Your task to perform on an android device: toggle improve location accuracy Image 0: 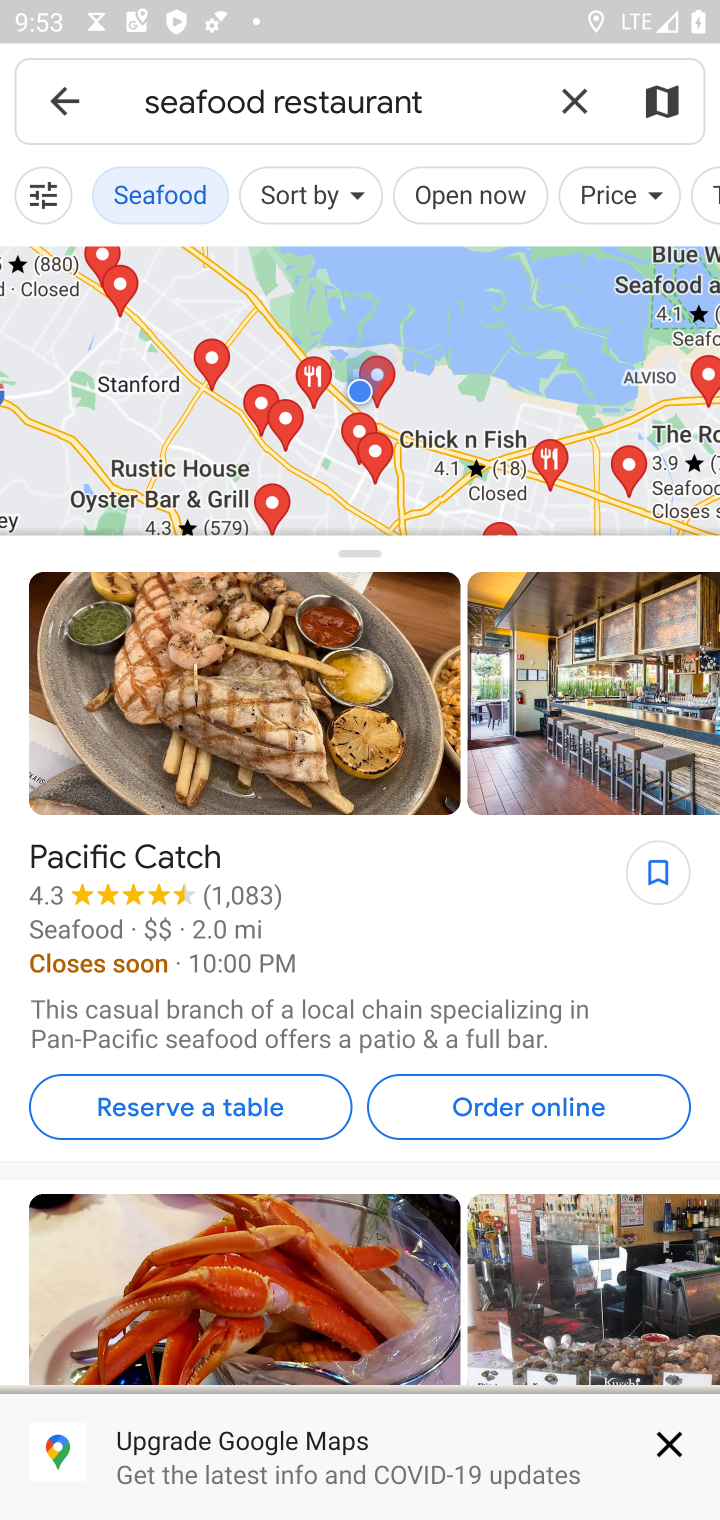
Step 0: press home button
Your task to perform on an android device: toggle improve location accuracy Image 1: 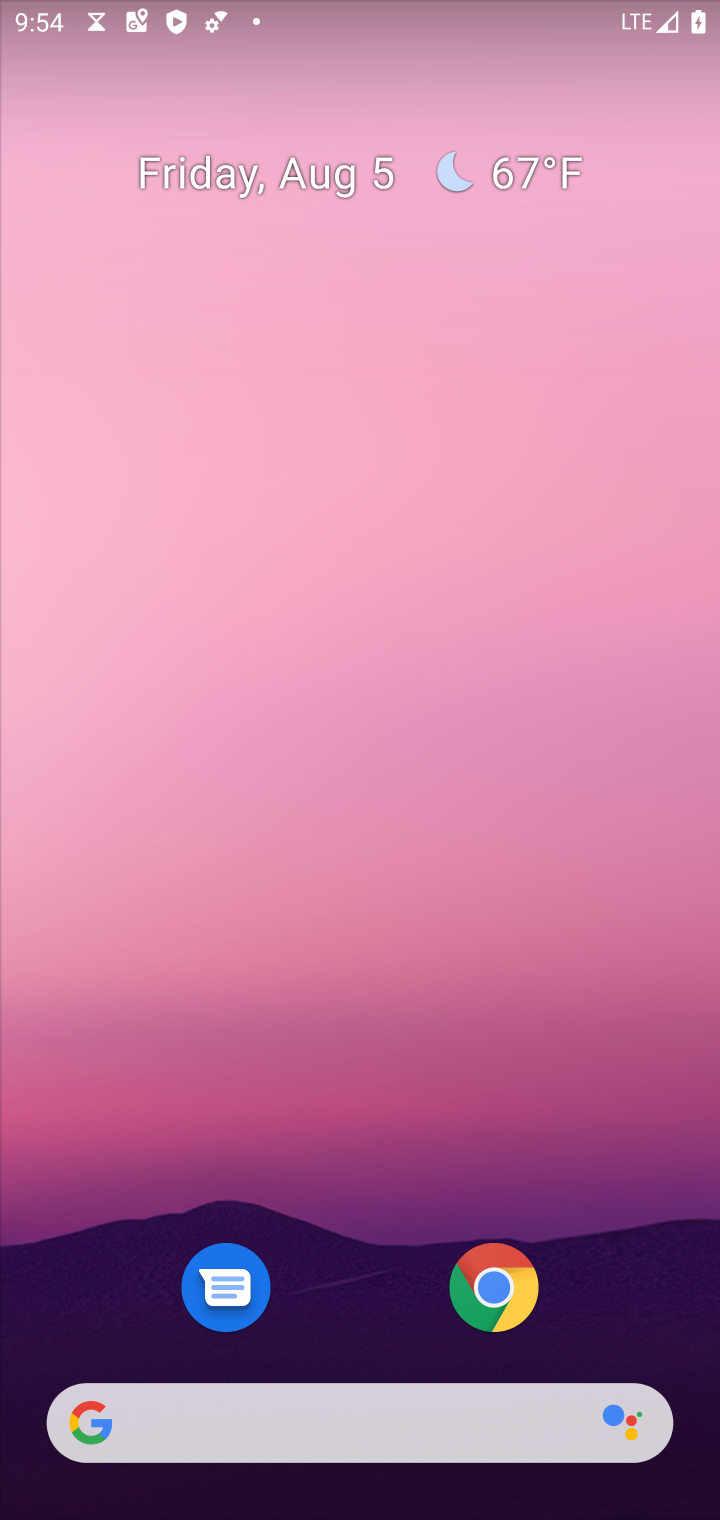
Step 1: drag from (351, 1286) to (351, 298)
Your task to perform on an android device: toggle improve location accuracy Image 2: 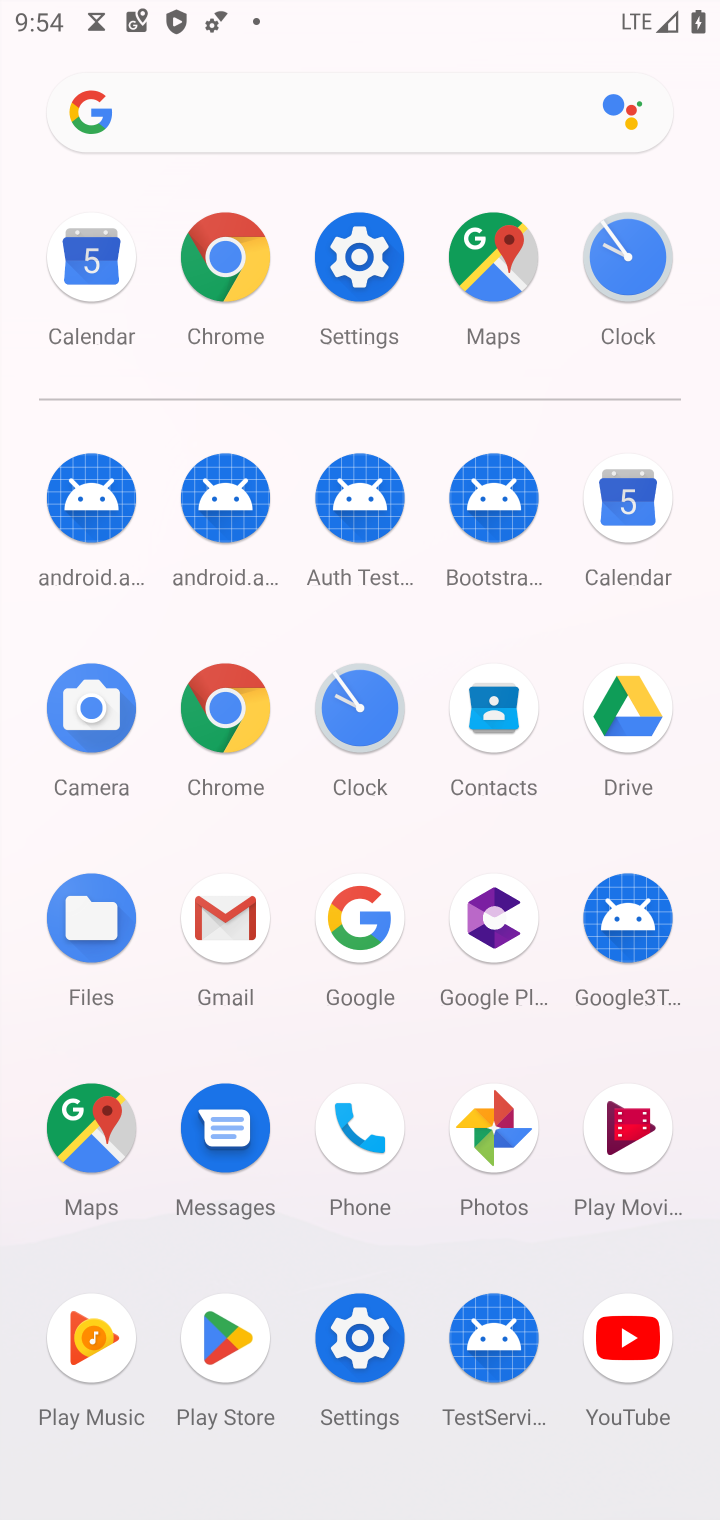
Step 2: click (350, 252)
Your task to perform on an android device: toggle improve location accuracy Image 3: 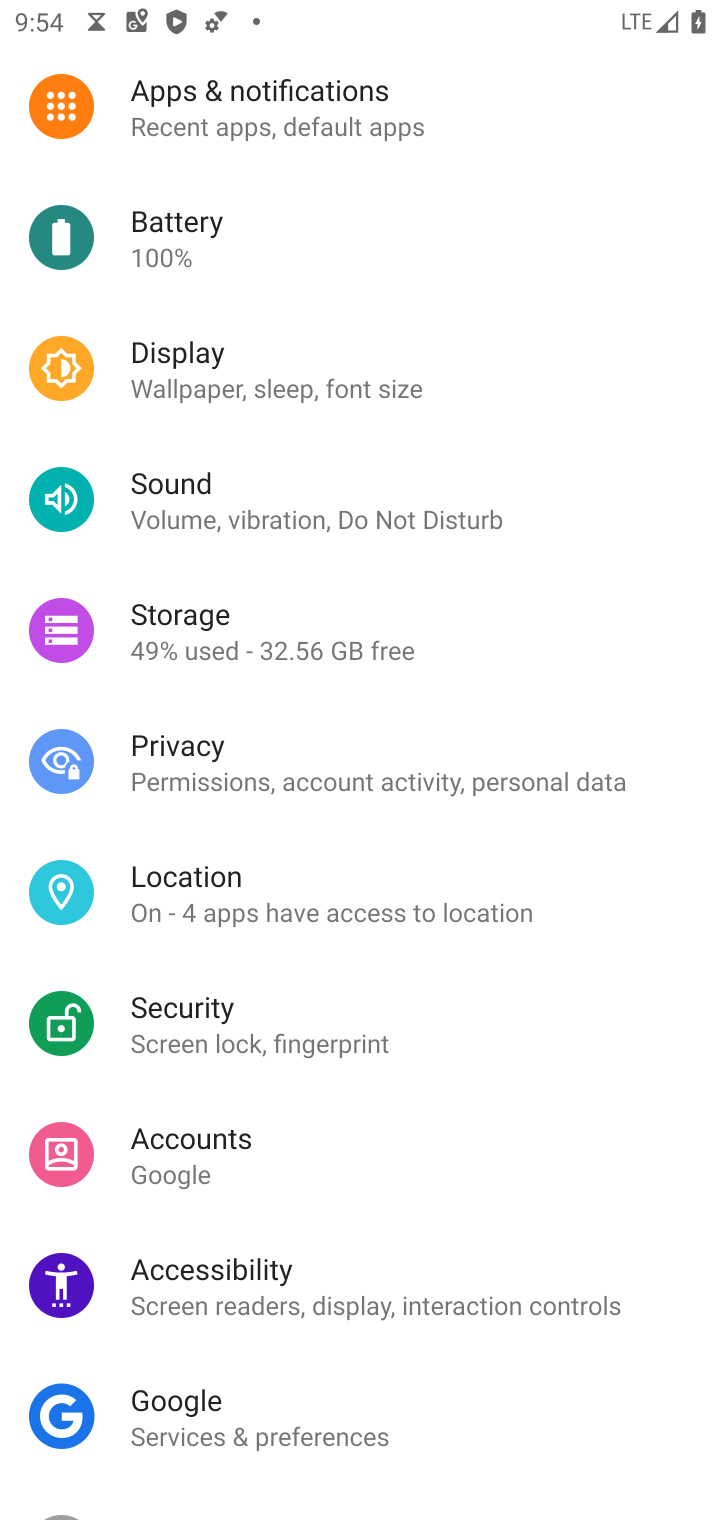
Step 3: click (204, 874)
Your task to perform on an android device: toggle improve location accuracy Image 4: 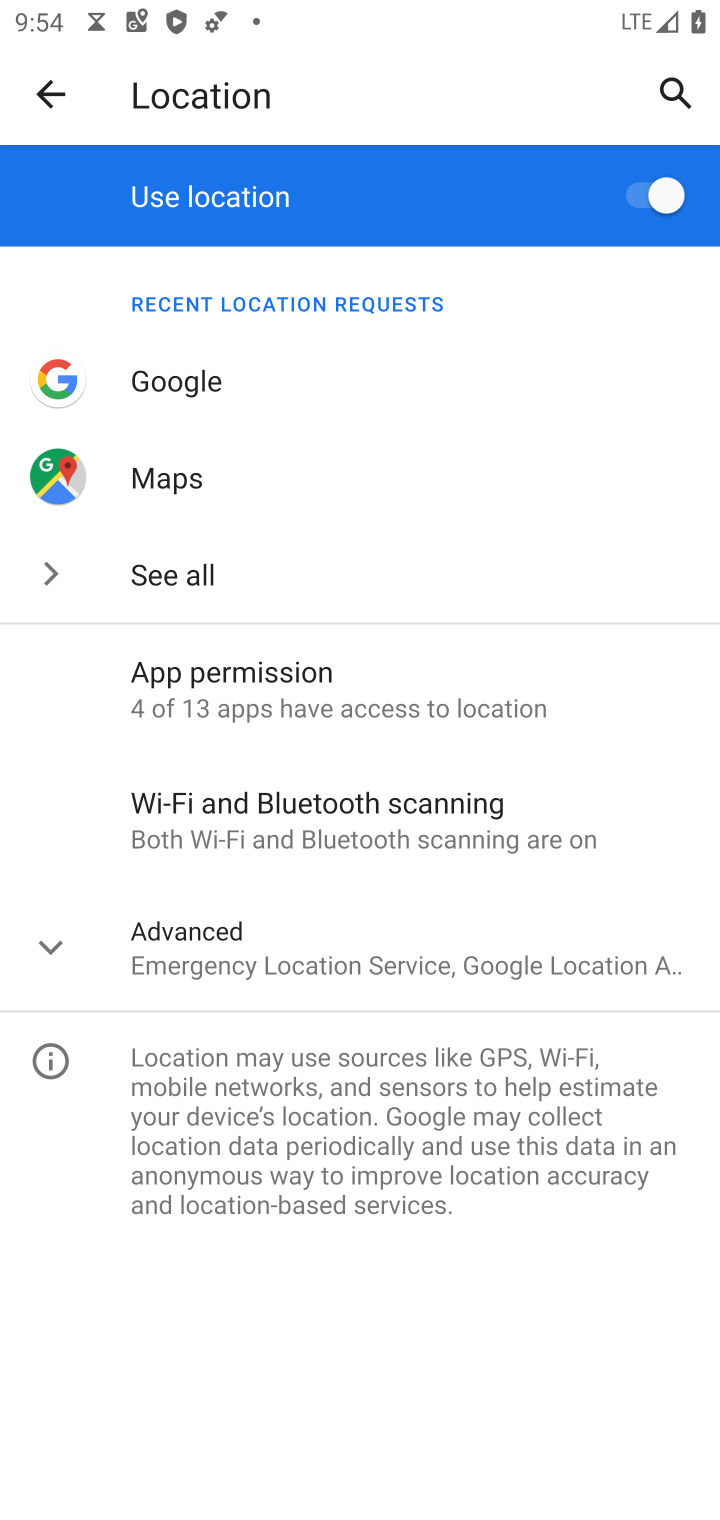
Step 4: click (190, 945)
Your task to perform on an android device: toggle improve location accuracy Image 5: 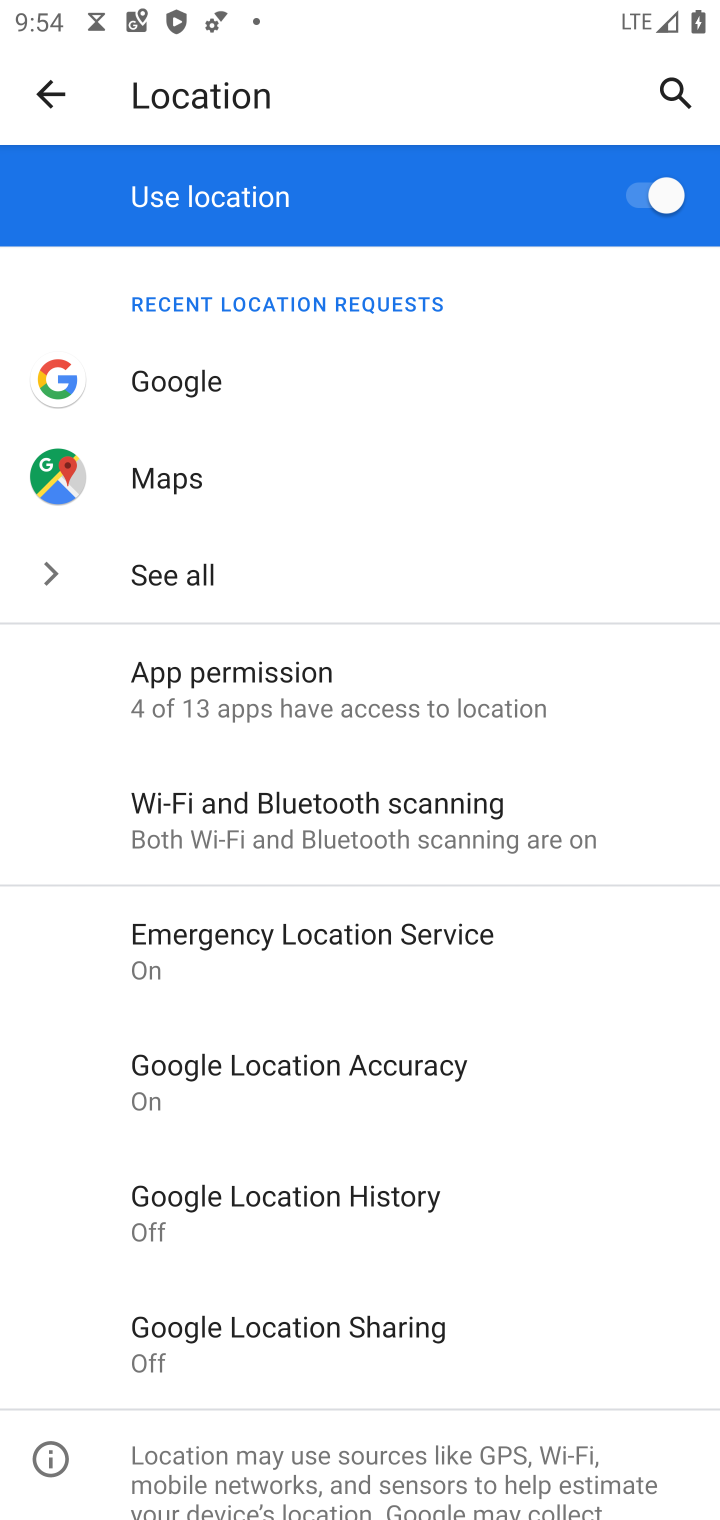
Step 5: click (319, 1057)
Your task to perform on an android device: toggle improve location accuracy Image 6: 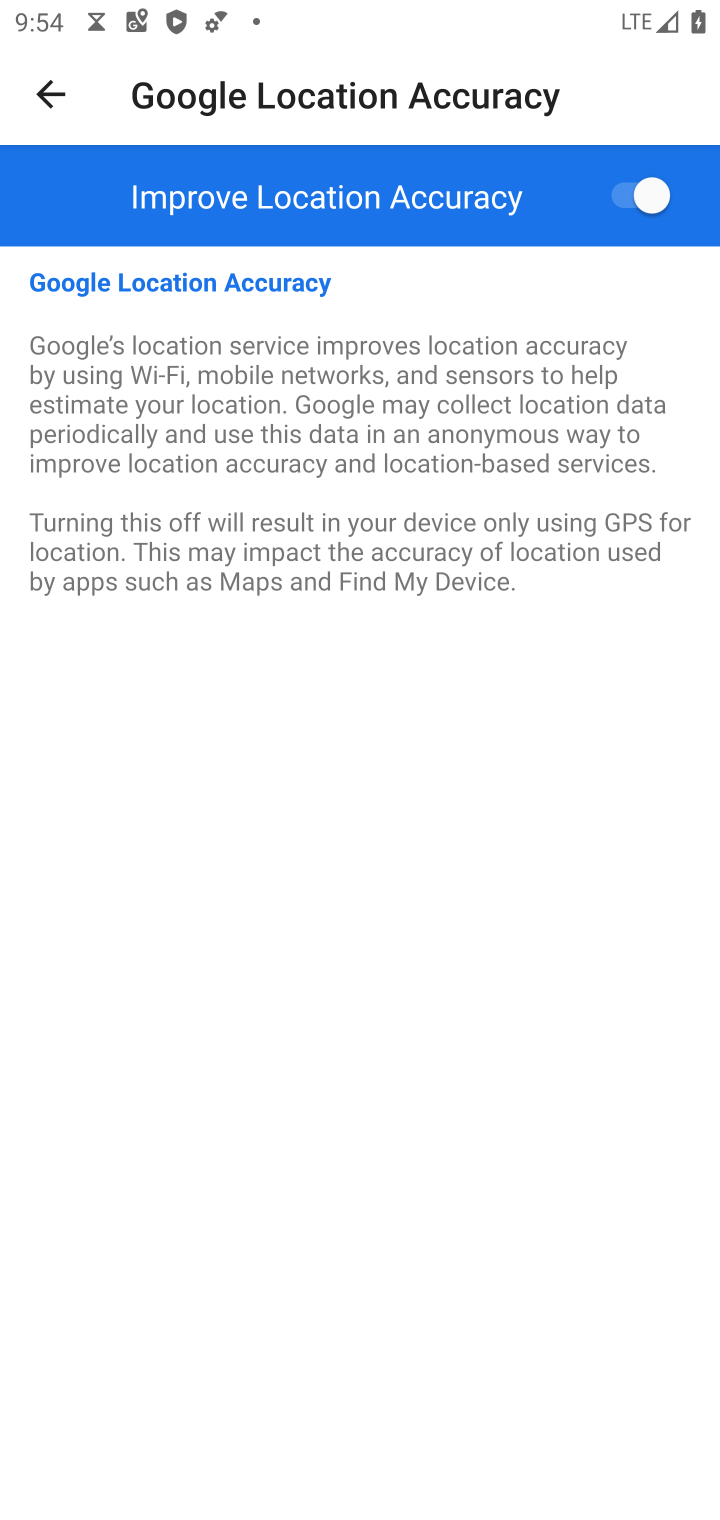
Step 6: click (640, 196)
Your task to perform on an android device: toggle improve location accuracy Image 7: 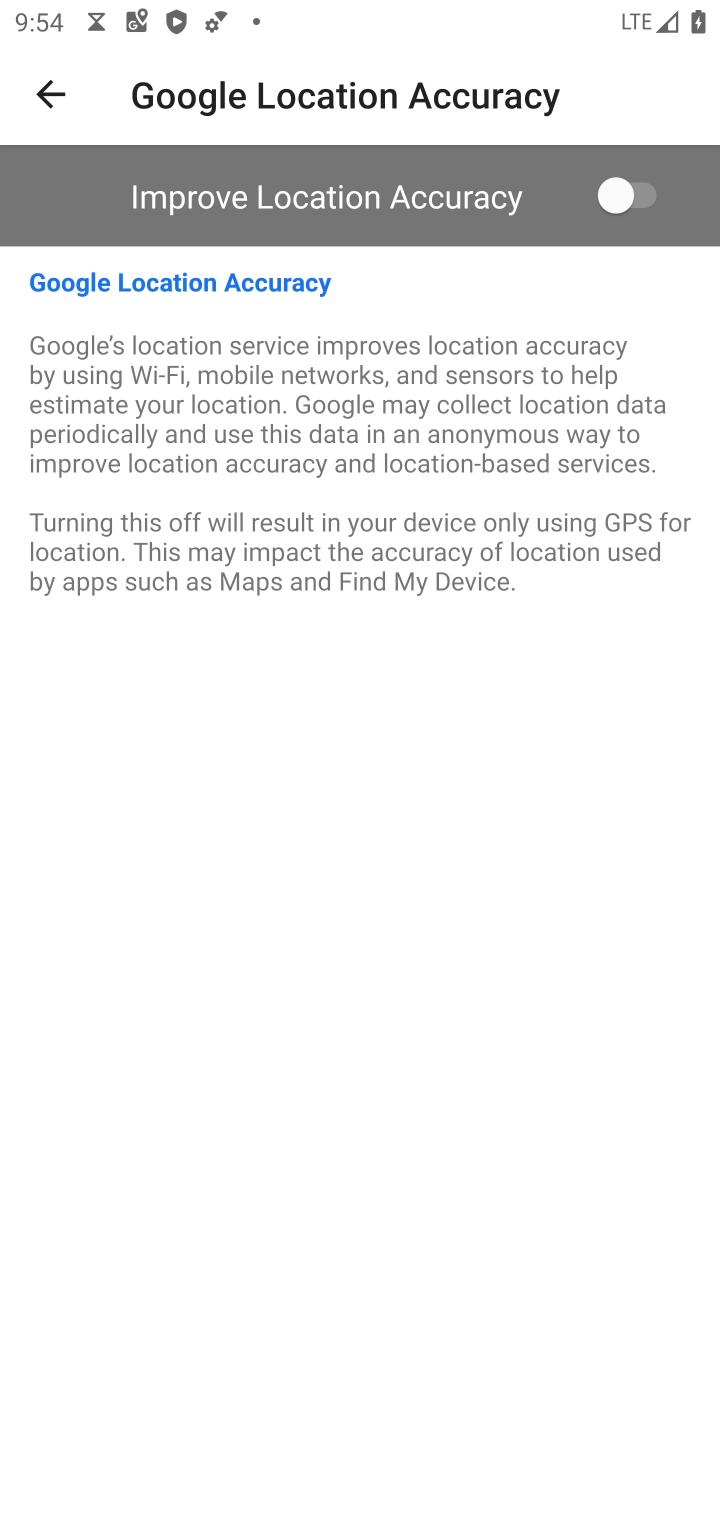
Step 7: task complete